Your task to perform on an android device: toggle javascript in the chrome app Image 0: 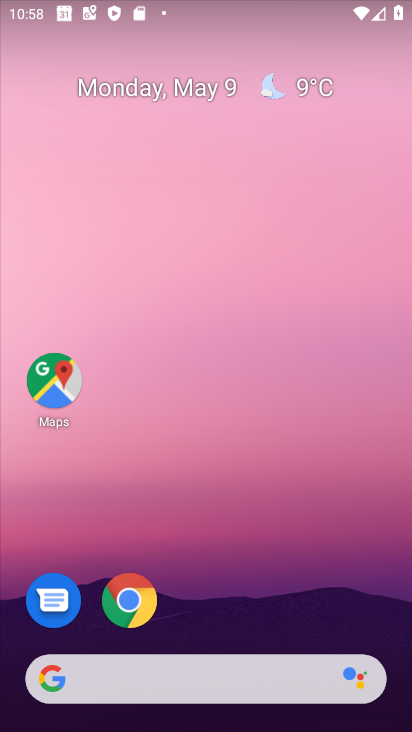
Step 0: drag from (355, 594) to (335, 138)
Your task to perform on an android device: toggle javascript in the chrome app Image 1: 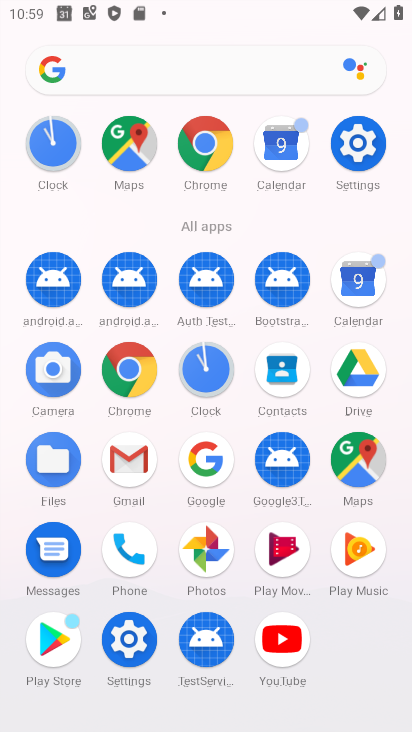
Step 1: click (190, 159)
Your task to perform on an android device: toggle javascript in the chrome app Image 2: 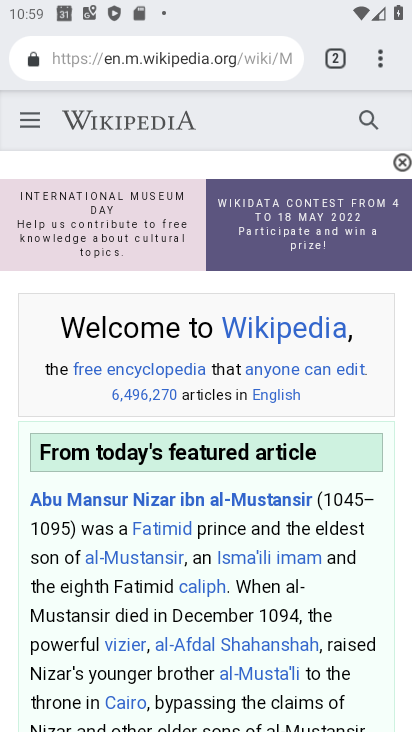
Step 2: drag from (374, 73) to (253, 636)
Your task to perform on an android device: toggle javascript in the chrome app Image 3: 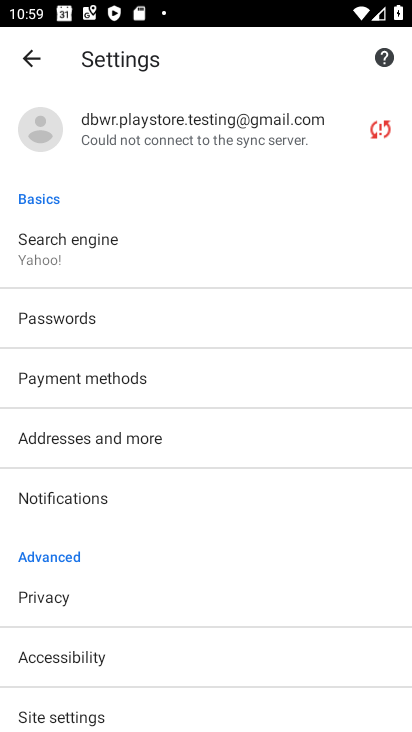
Step 3: drag from (149, 580) to (192, 351)
Your task to perform on an android device: toggle javascript in the chrome app Image 4: 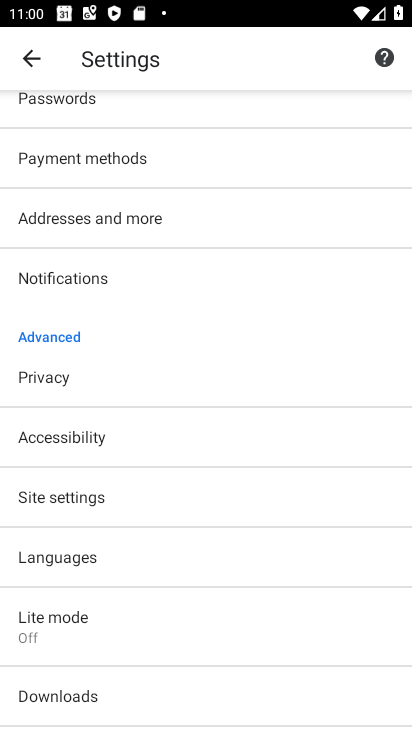
Step 4: drag from (155, 624) to (207, 439)
Your task to perform on an android device: toggle javascript in the chrome app Image 5: 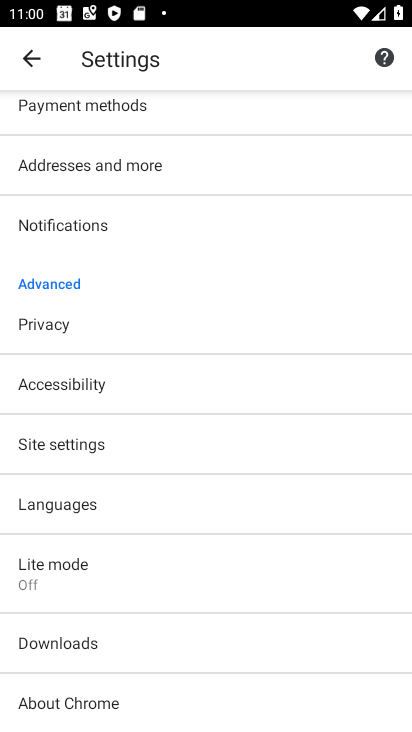
Step 5: click (112, 453)
Your task to perform on an android device: toggle javascript in the chrome app Image 6: 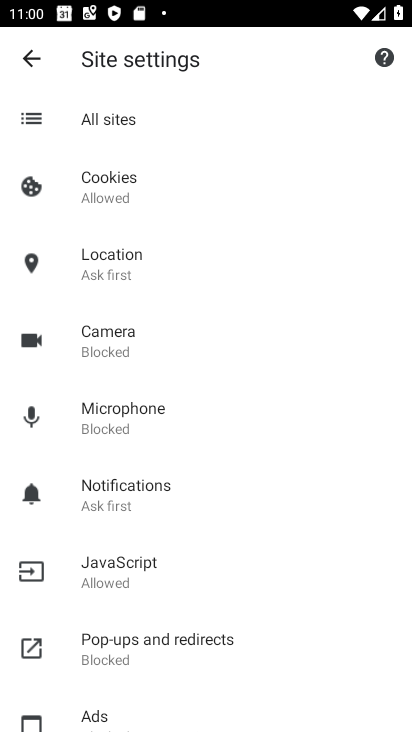
Step 6: click (185, 574)
Your task to perform on an android device: toggle javascript in the chrome app Image 7: 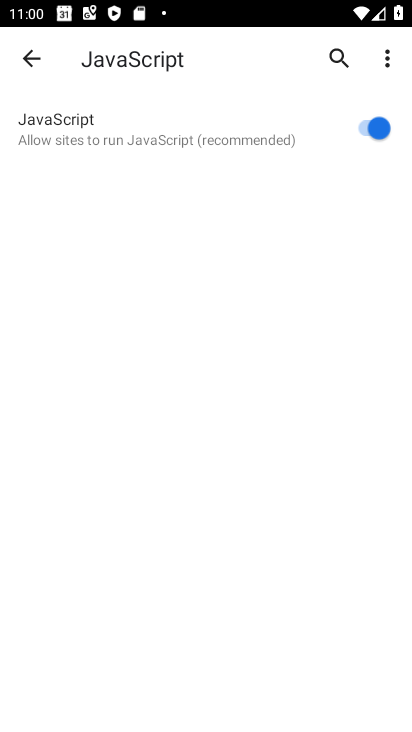
Step 7: click (364, 128)
Your task to perform on an android device: toggle javascript in the chrome app Image 8: 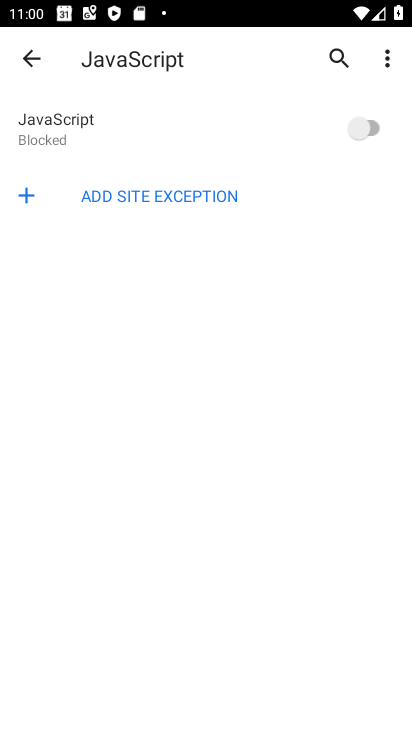
Step 8: task complete